Your task to perform on an android device: toggle data saver in the chrome app Image 0: 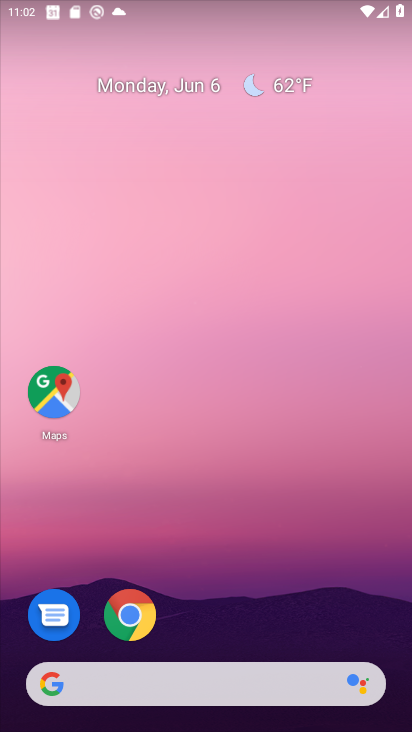
Step 0: drag from (257, 709) to (148, 156)
Your task to perform on an android device: toggle data saver in the chrome app Image 1: 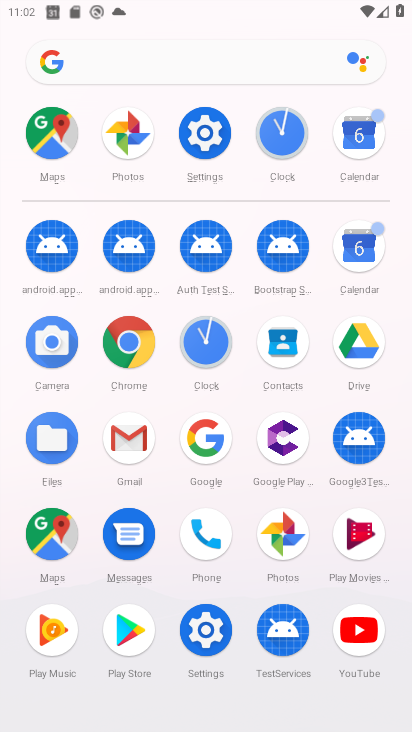
Step 1: click (130, 339)
Your task to perform on an android device: toggle data saver in the chrome app Image 2: 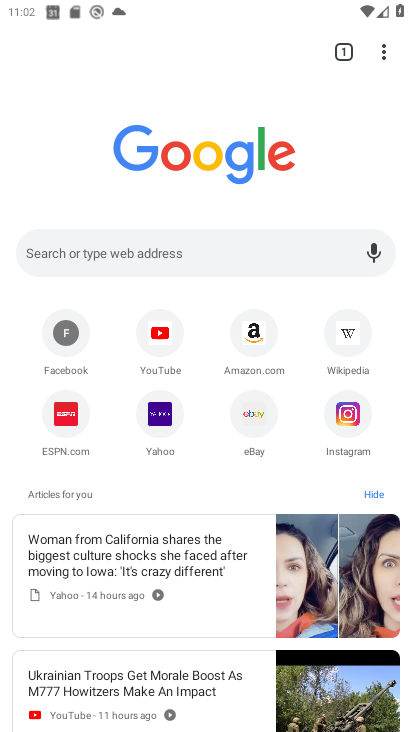
Step 2: drag from (384, 58) to (187, 440)
Your task to perform on an android device: toggle data saver in the chrome app Image 3: 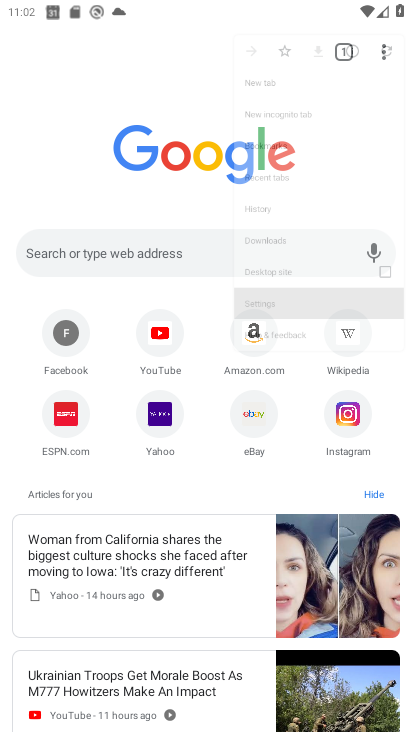
Step 3: click (187, 440)
Your task to perform on an android device: toggle data saver in the chrome app Image 4: 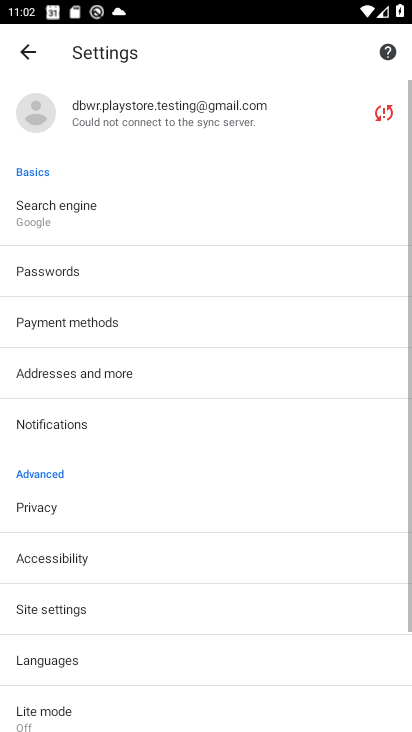
Step 4: drag from (154, 593) to (102, 250)
Your task to perform on an android device: toggle data saver in the chrome app Image 5: 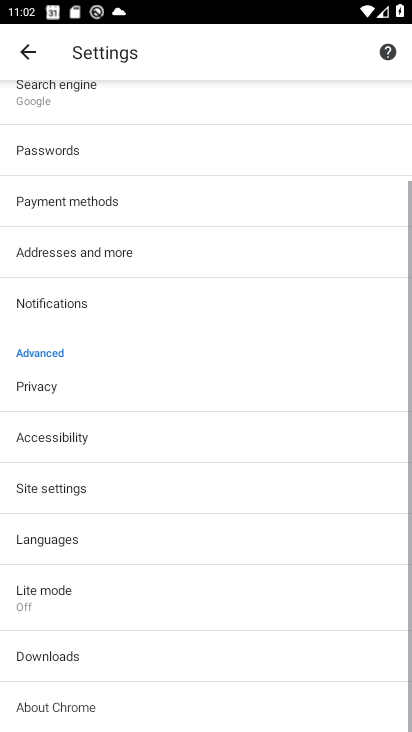
Step 5: drag from (149, 521) to (151, 222)
Your task to perform on an android device: toggle data saver in the chrome app Image 6: 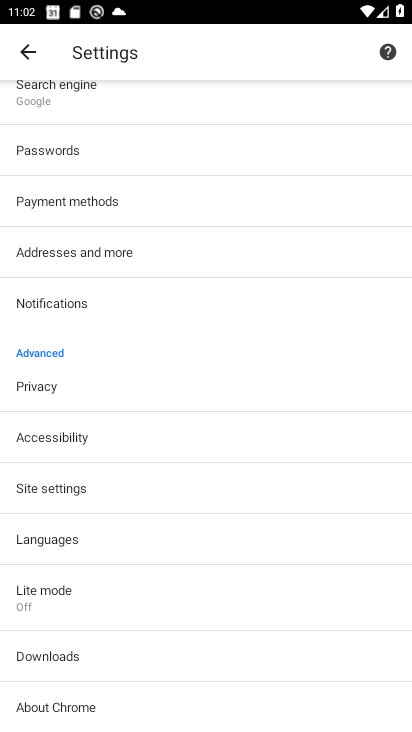
Step 6: click (48, 582)
Your task to perform on an android device: toggle data saver in the chrome app Image 7: 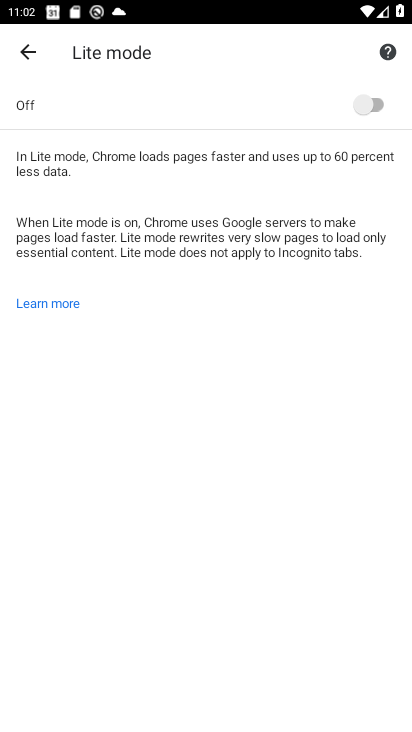
Step 7: click (364, 108)
Your task to perform on an android device: toggle data saver in the chrome app Image 8: 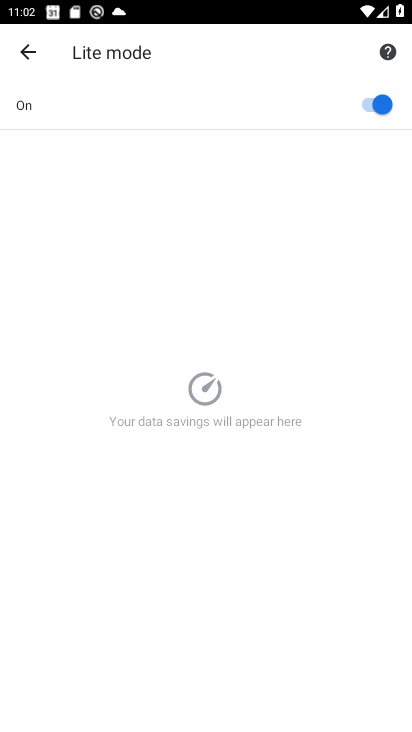
Step 8: task complete